Your task to perform on an android device: delete a single message in the gmail app Image 0: 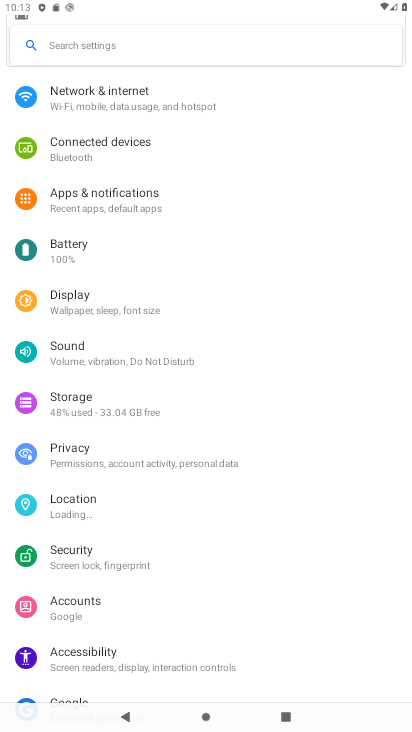
Step 0: press home button
Your task to perform on an android device: delete a single message in the gmail app Image 1: 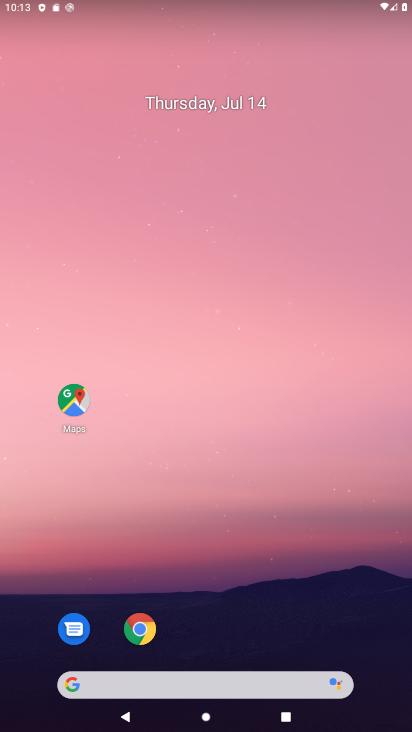
Step 1: drag from (168, 665) to (143, 356)
Your task to perform on an android device: delete a single message in the gmail app Image 2: 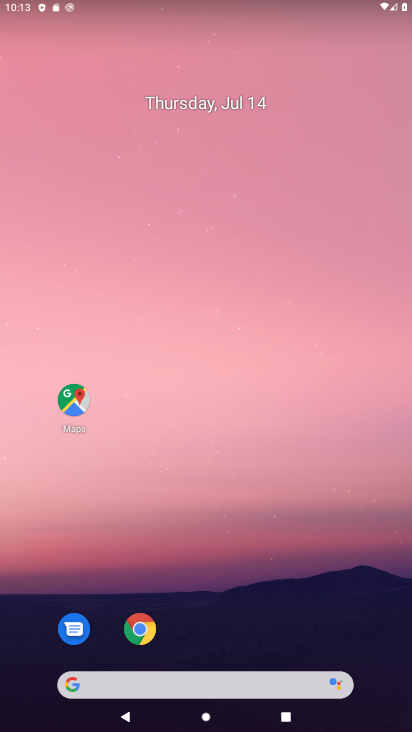
Step 2: drag from (215, 671) to (204, 193)
Your task to perform on an android device: delete a single message in the gmail app Image 3: 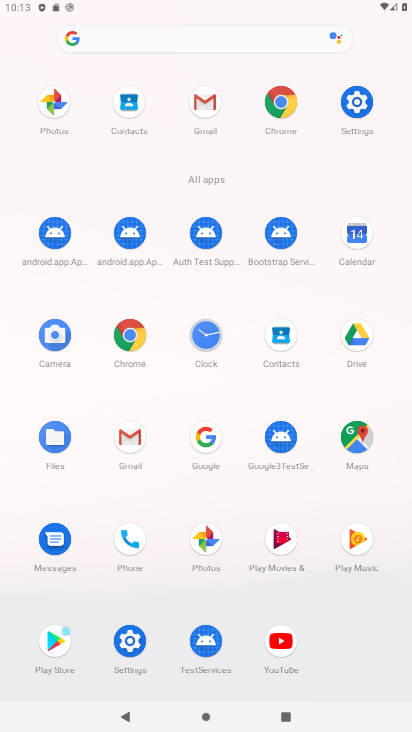
Step 3: click (203, 103)
Your task to perform on an android device: delete a single message in the gmail app Image 4: 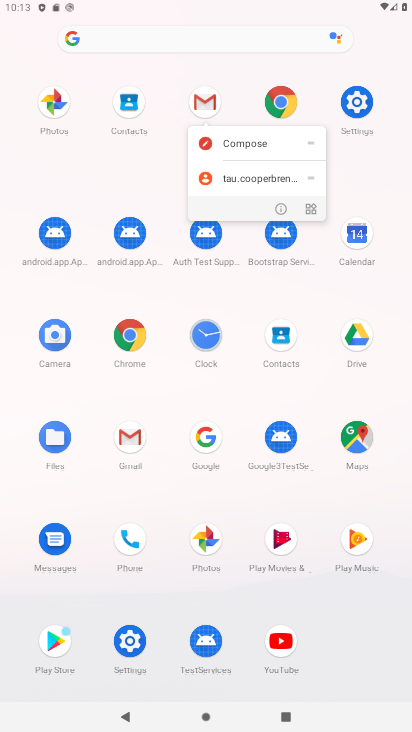
Step 4: click (195, 107)
Your task to perform on an android device: delete a single message in the gmail app Image 5: 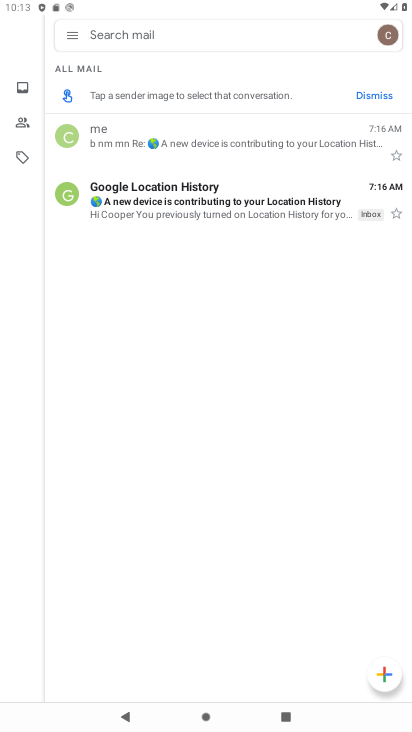
Step 5: click (168, 131)
Your task to perform on an android device: delete a single message in the gmail app Image 6: 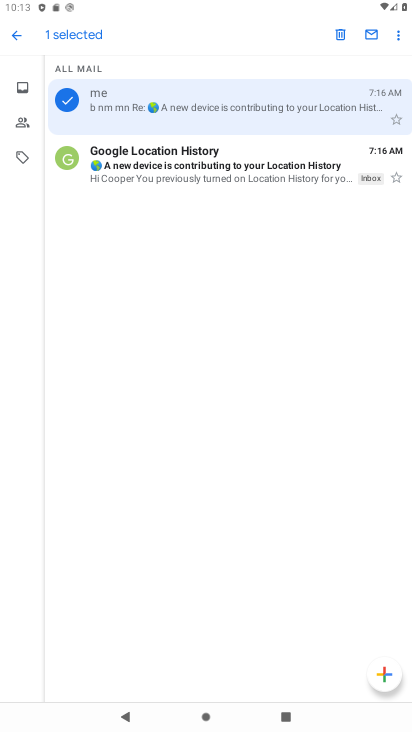
Step 6: click (336, 28)
Your task to perform on an android device: delete a single message in the gmail app Image 7: 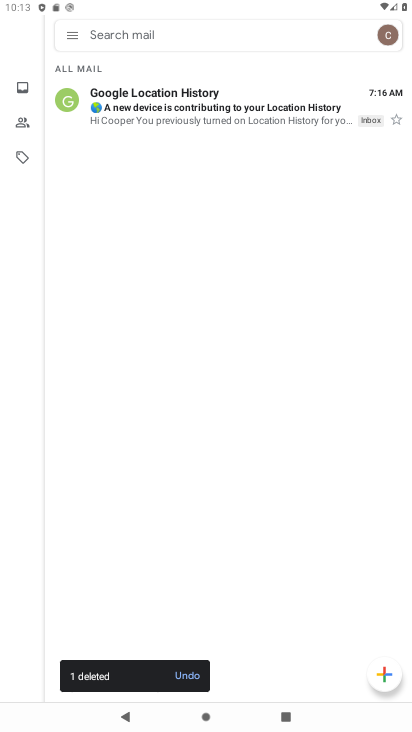
Step 7: task complete